Your task to perform on an android device: Go to Yahoo.com Image 0: 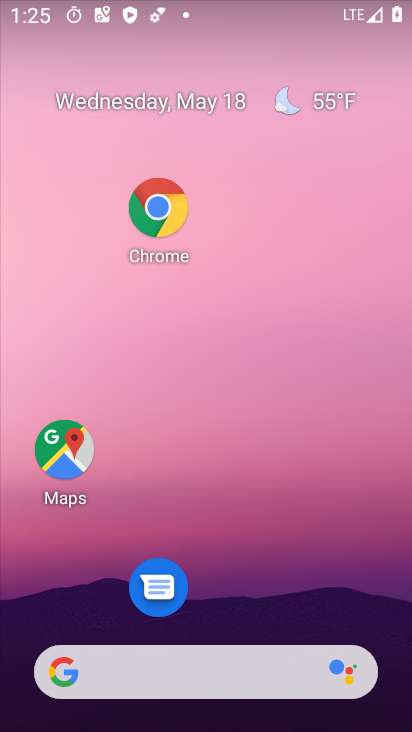
Step 0: click (150, 246)
Your task to perform on an android device: Go to Yahoo.com Image 1: 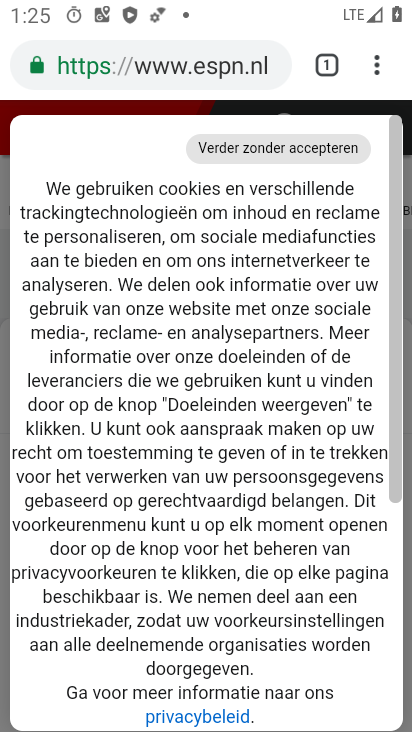
Step 1: press back button
Your task to perform on an android device: Go to Yahoo.com Image 2: 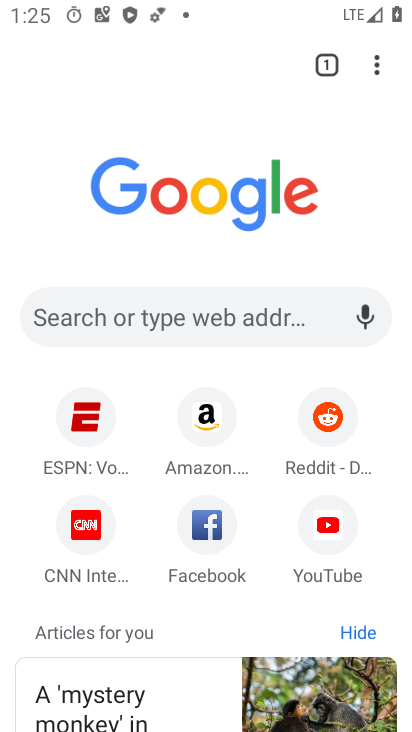
Step 2: click (194, 314)
Your task to perform on an android device: Go to Yahoo.com Image 3: 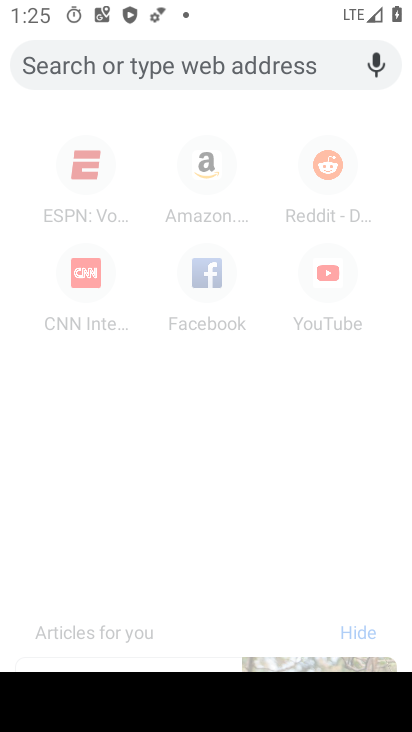
Step 3: type "www.yahoo.com"
Your task to perform on an android device: Go to Yahoo.com Image 4: 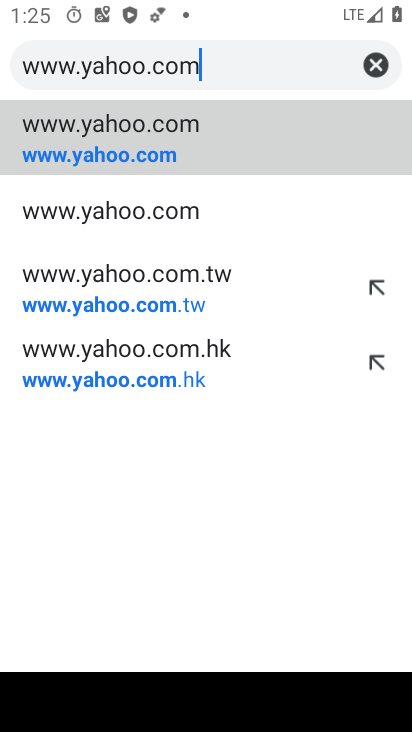
Step 4: click (121, 163)
Your task to perform on an android device: Go to Yahoo.com Image 5: 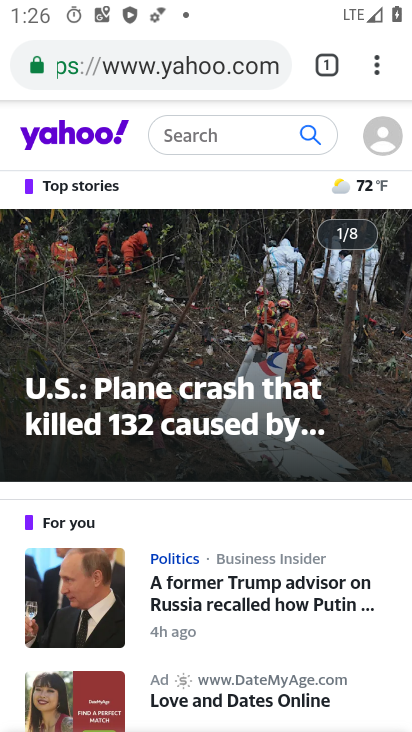
Step 5: task complete